Your task to perform on an android device: change timer sound Image 0: 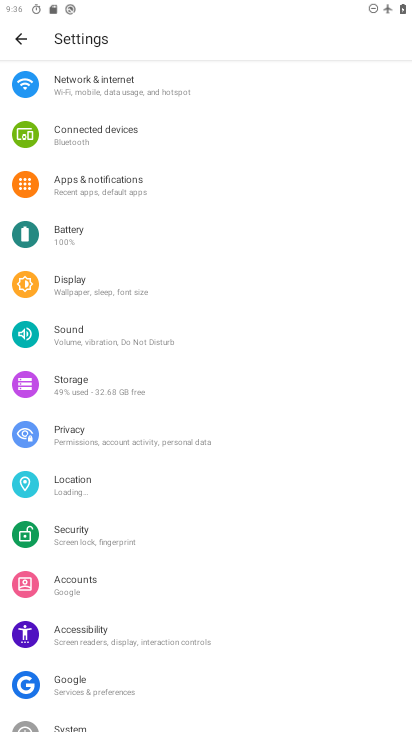
Step 0: press home button
Your task to perform on an android device: change timer sound Image 1: 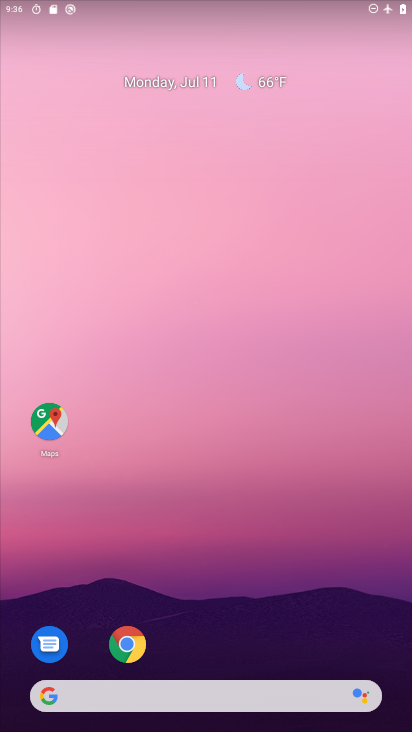
Step 1: drag from (321, 468) to (288, 158)
Your task to perform on an android device: change timer sound Image 2: 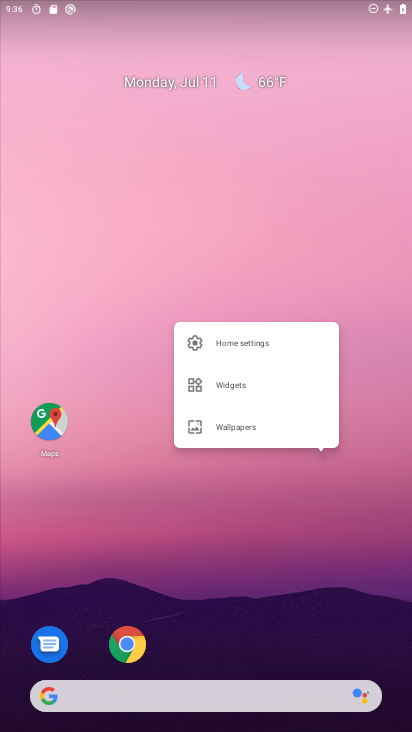
Step 2: click (293, 518)
Your task to perform on an android device: change timer sound Image 3: 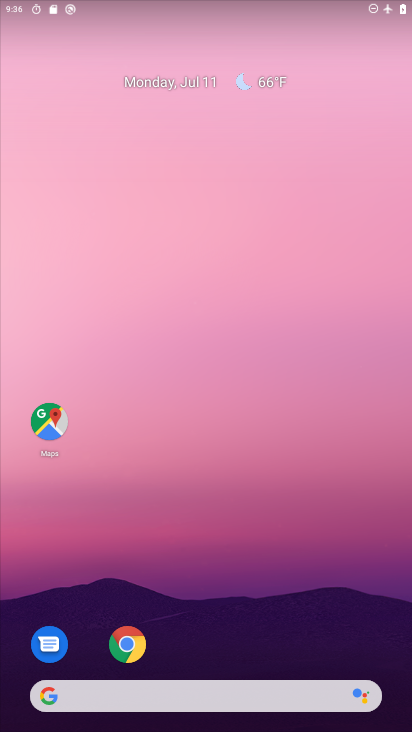
Step 3: drag from (282, 651) to (195, 101)
Your task to perform on an android device: change timer sound Image 4: 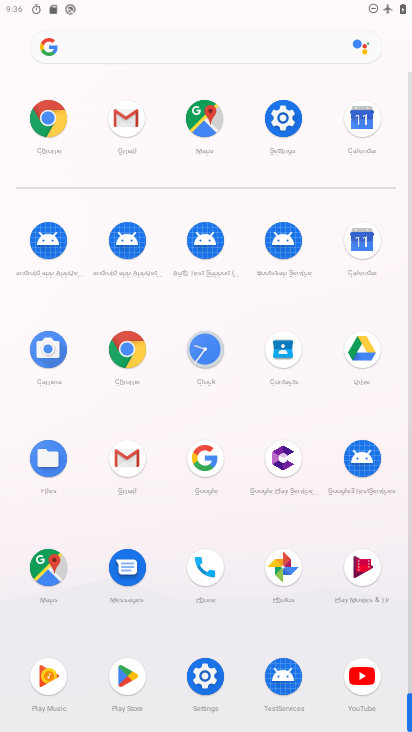
Step 4: click (213, 352)
Your task to perform on an android device: change timer sound Image 5: 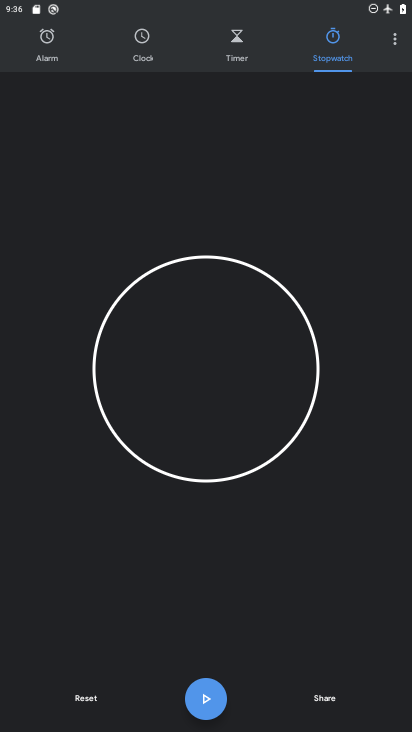
Step 5: click (395, 34)
Your task to perform on an android device: change timer sound Image 6: 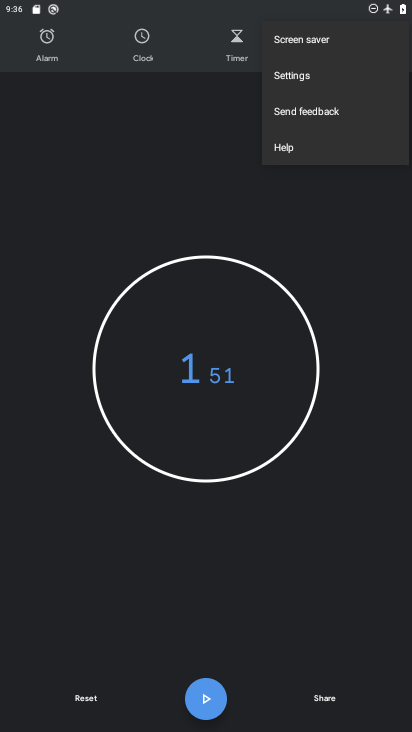
Step 6: click (309, 73)
Your task to perform on an android device: change timer sound Image 7: 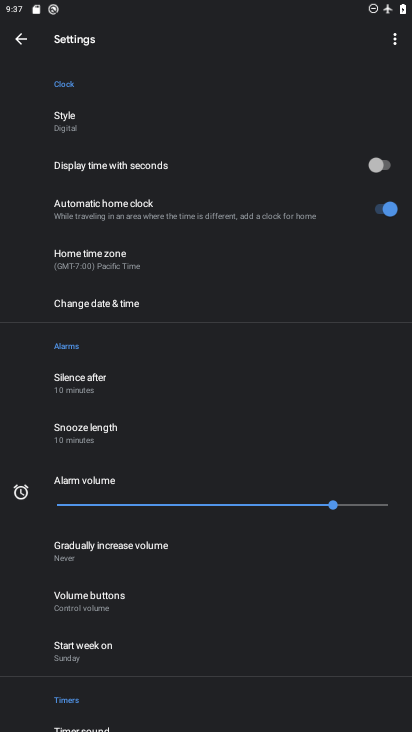
Step 7: drag from (305, 619) to (301, 322)
Your task to perform on an android device: change timer sound Image 8: 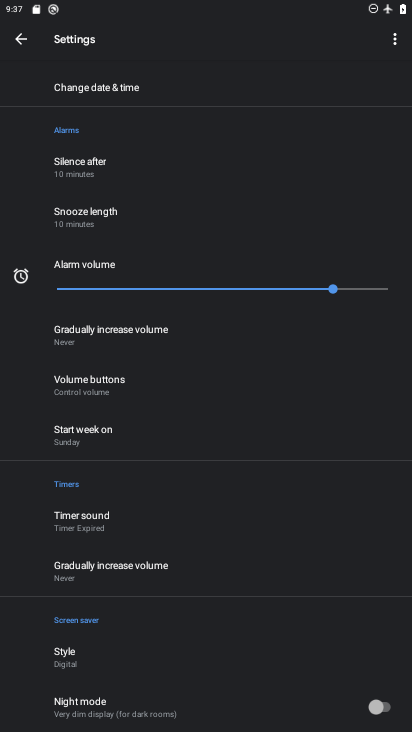
Step 8: click (88, 532)
Your task to perform on an android device: change timer sound Image 9: 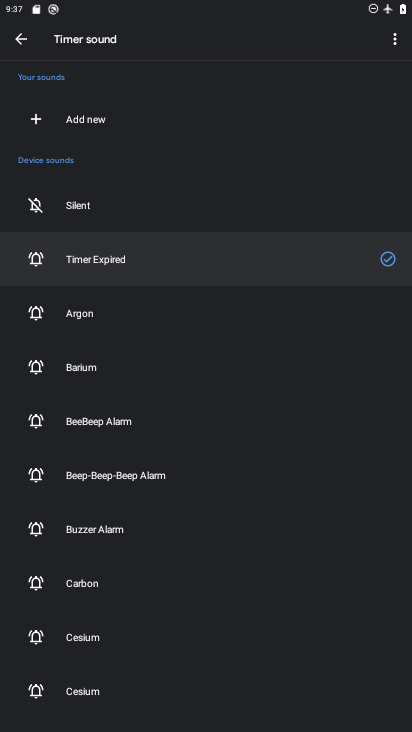
Step 9: click (96, 312)
Your task to perform on an android device: change timer sound Image 10: 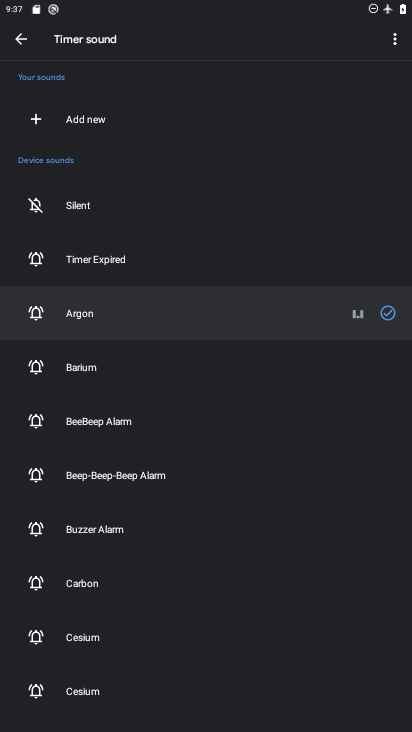
Step 10: task complete